Your task to perform on an android device: Open the Play Movies app and select the watchlist tab. Image 0: 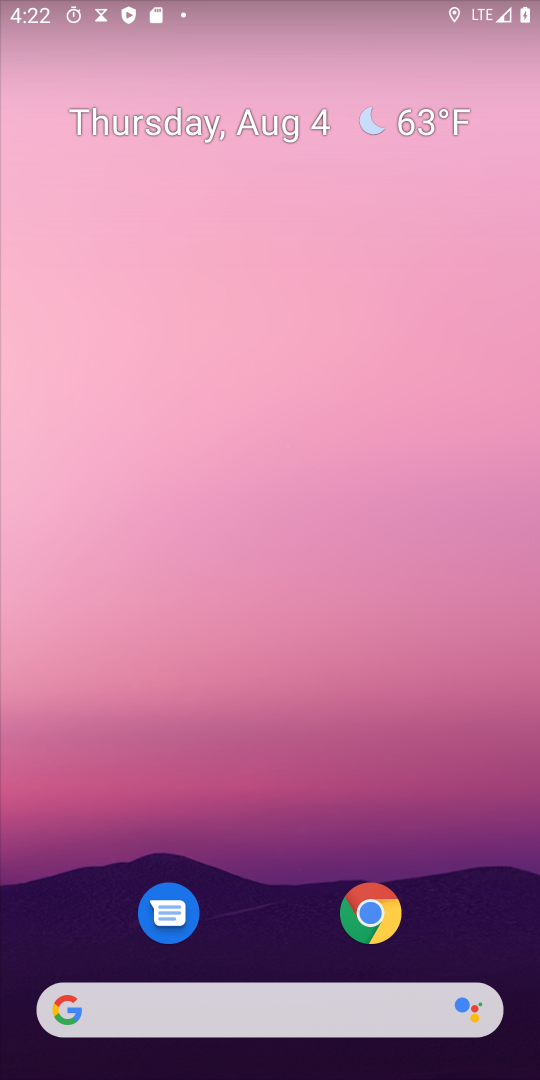
Step 0: drag from (302, 1024) to (296, 162)
Your task to perform on an android device: Open the Play Movies app and select the watchlist tab. Image 1: 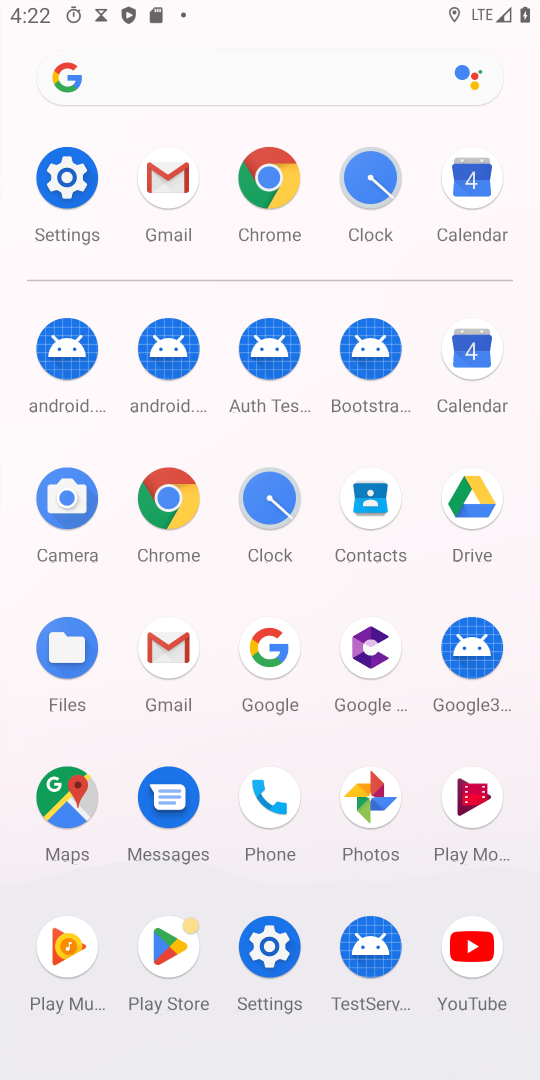
Step 1: click (465, 783)
Your task to perform on an android device: Open the Play Movies app and select the watchlist tab. Image 2: 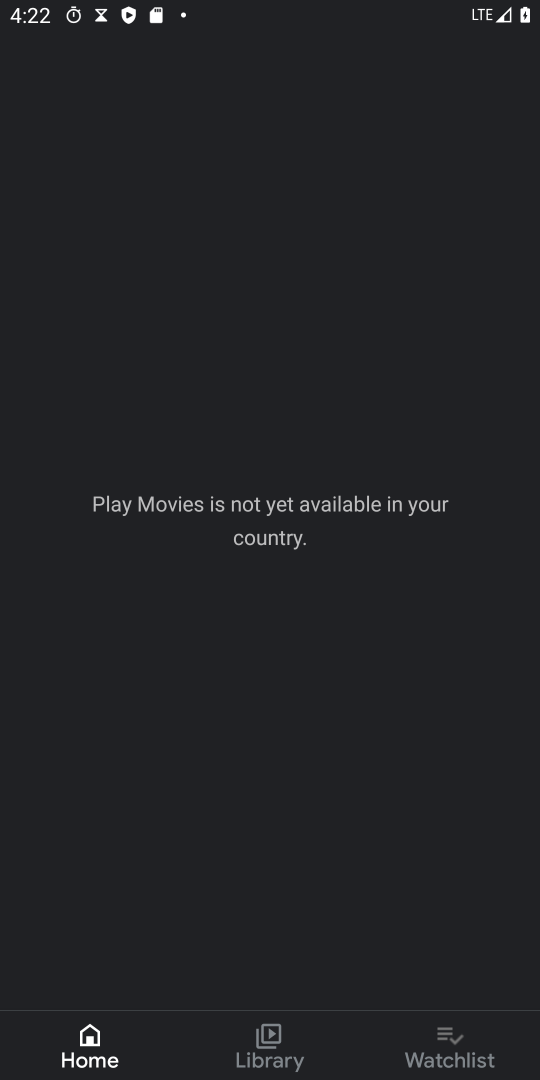
Step 2: click (445, 1033)
Your task to perform on an android device: Open the Play Movies app and select the watchlist tab. Image 3: 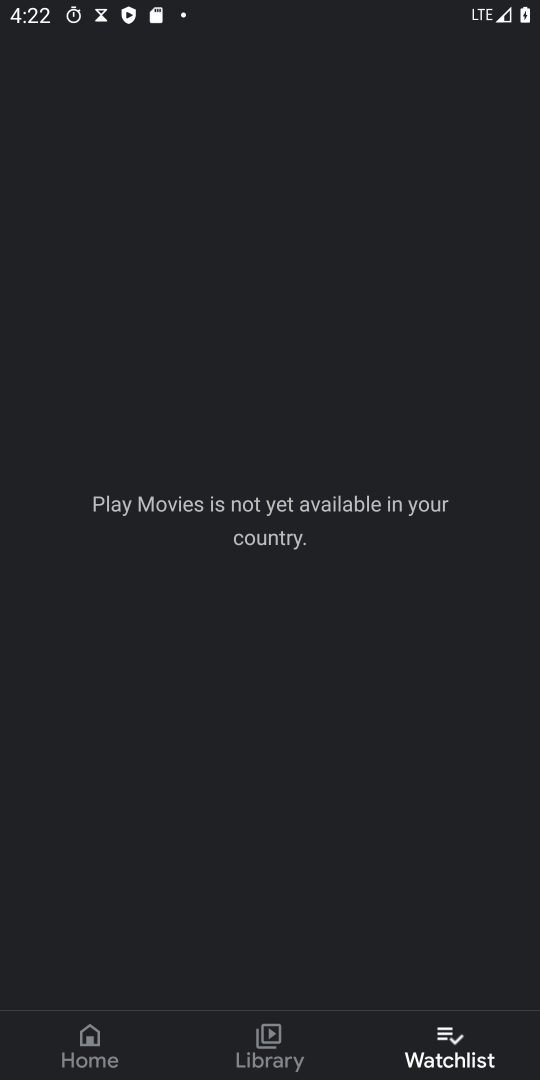
Step 3: task complete